Your task to perform on an android device: open a bookmark in the chrome app Image 0: 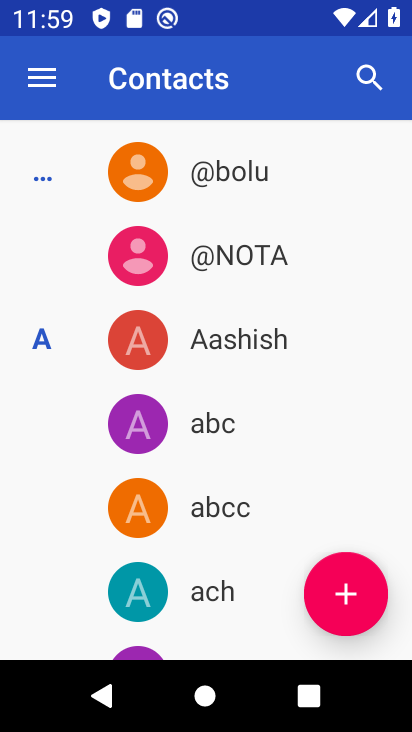
Step 0: press home button
Your task to perform on an android device: open a bookmark in the chrome app Image 1: 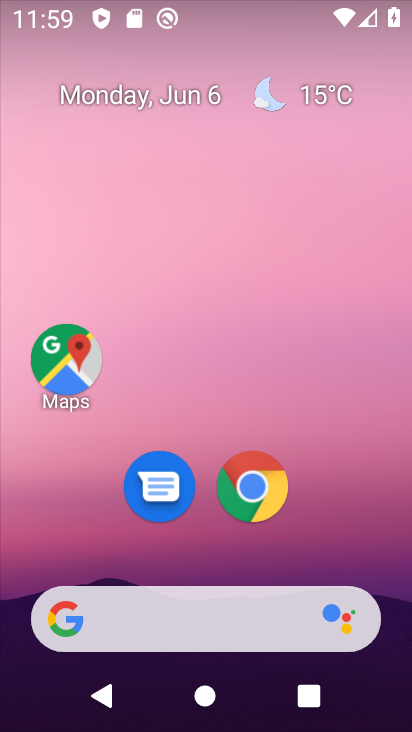
Step 1: click (272, 500)
Your task to perform on an android device: open a bookmark in the chrome app Image 2: 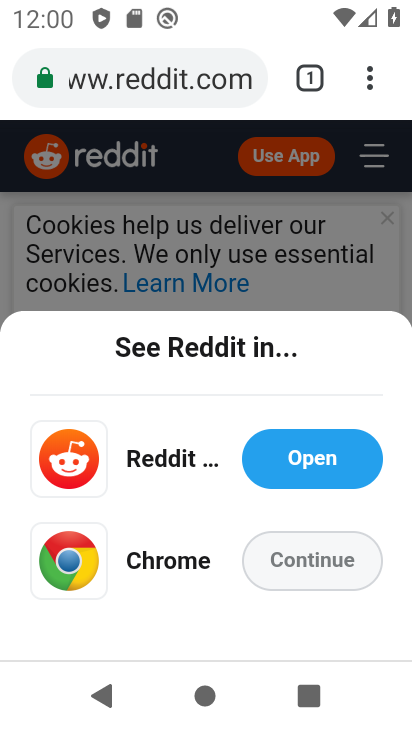
Step 2: click (378, 78)
Your task to perform on an android device: open a bookmark in the chrome app Image 3: 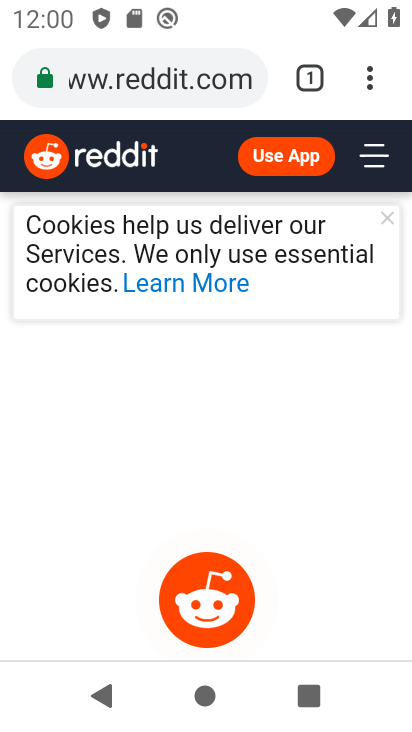
Step 3: click (354, 79)
Your task to perform on an android device: open a bookmark in the chrome app Image 4: 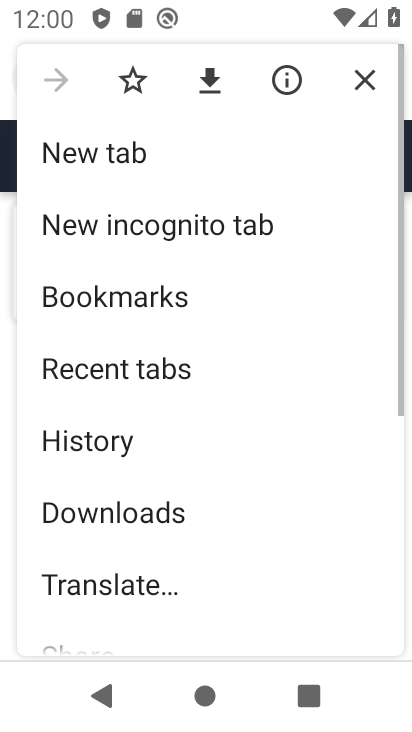
Step 4: click (173, 306)
Your task to perform on an android device: open a bookmark in the chrome app Image 5: 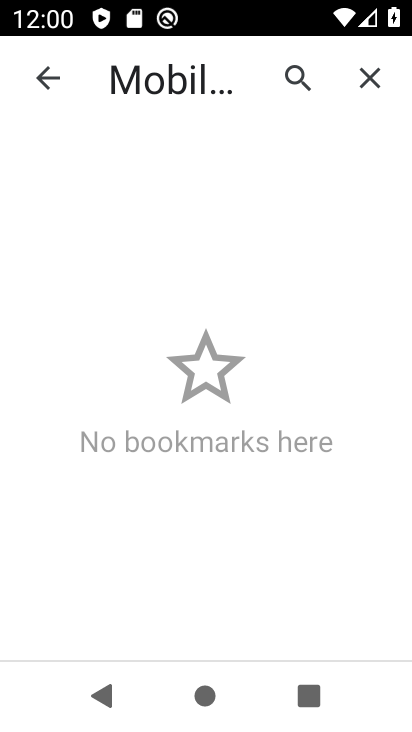
Step 5: task complete